Your task to perform on an android device: turn notification dots off Image 0: 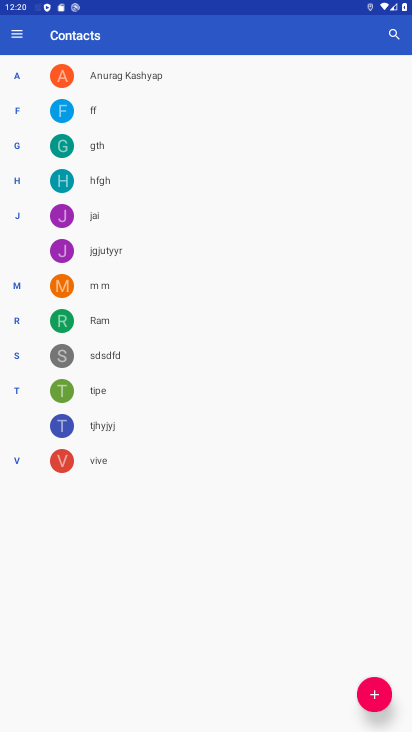
Step 0: press home button
Your task to perform on an android device: turn notification dots off Image 1: 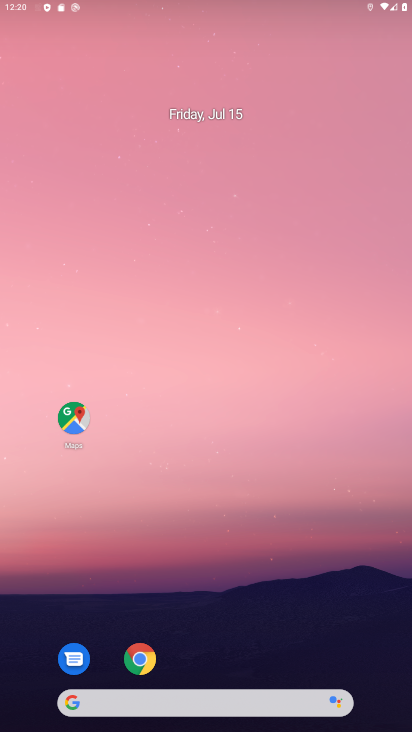
Step 1: drag from (214, 593) to (209, 67)
Your task to perform on an android device: turn notification dots off Image 2: 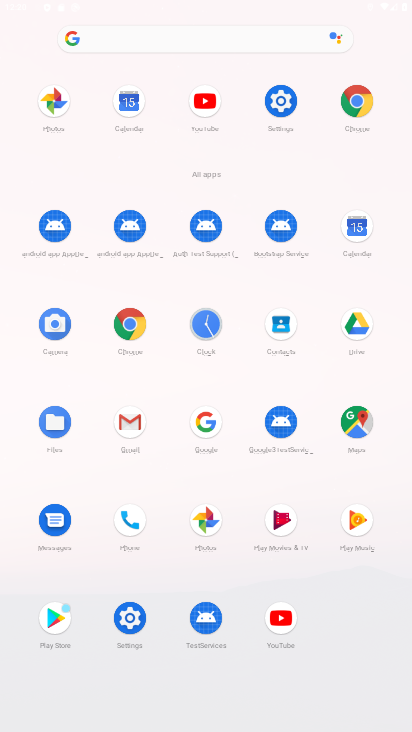
Step 2: click (282, 102)
Your task to perform on an android device: turn notification dots off Image 3: 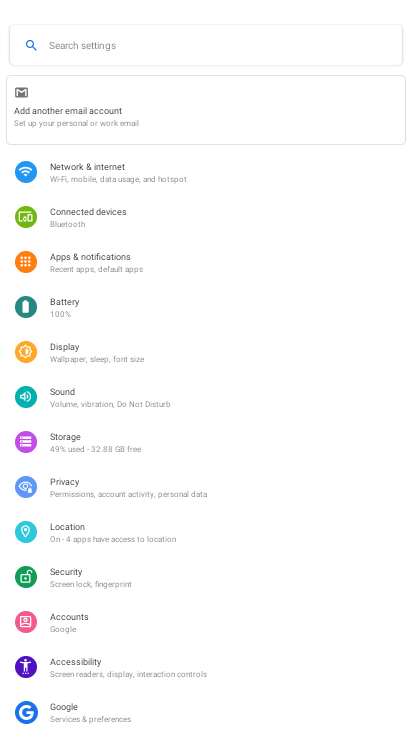
Step 3: click (110, 259)
Your task to perform on an android device: turn notification dots off Image 4: 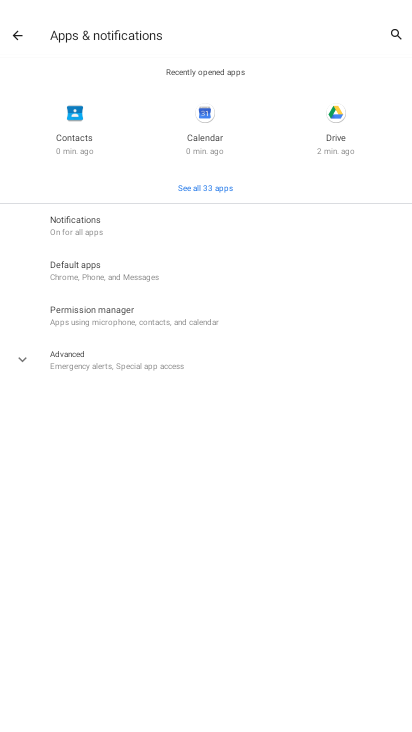
Step 4: click (133, 234)
Your task to perform on an android device: turn notification dots off Image 5: 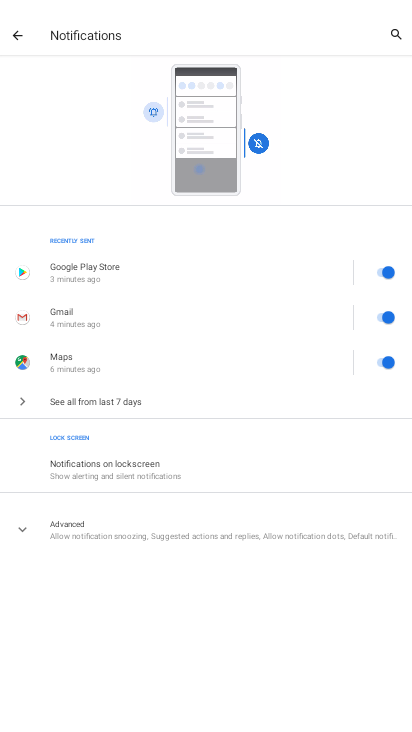
Step 5: click (120, 527)
Your task to perform on an android device: turn notification dots off Image 6: 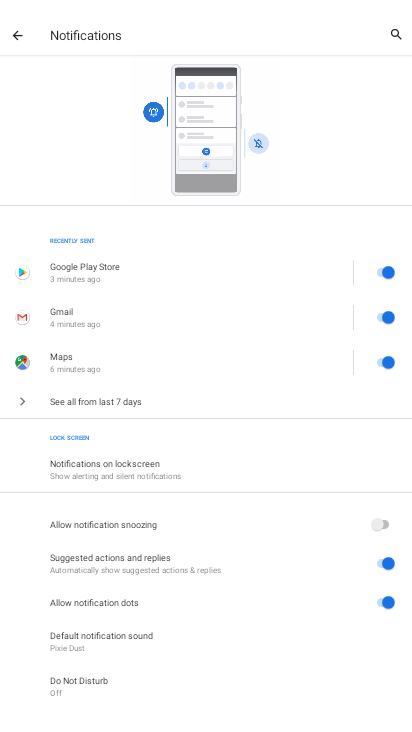
Step 6: click (383, 607)
Your task to perform on an android device: turn notification dots off Image 7: 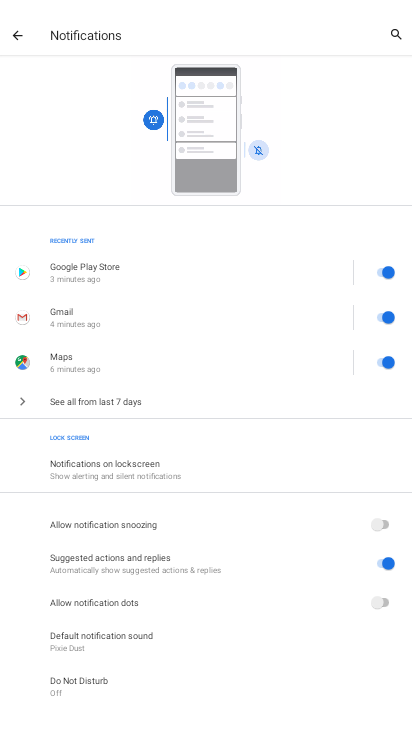
Step 7: task complete